Your task to perform on an android device: Open eBay Image 0: 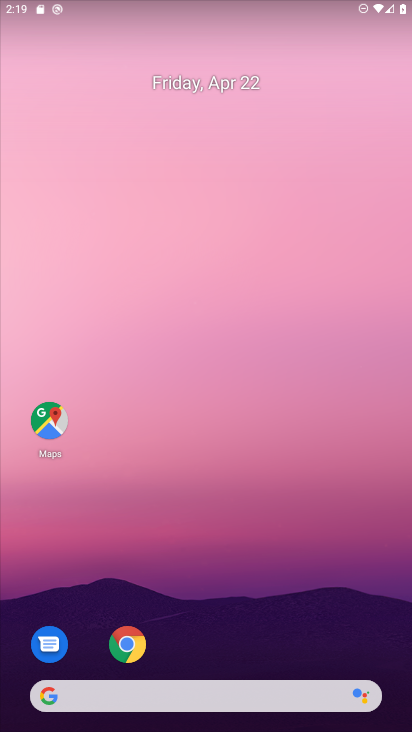
Step 0: drag from (181, 554) to (204, 67)
Your task to perform on an android device: Open eBay Image 1: 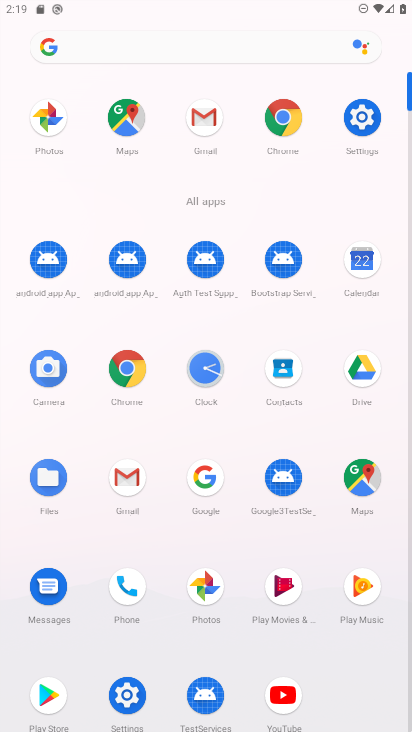
Step 1: click (281, 119)
Your task to perform on an android device: Open eBay Image 2: 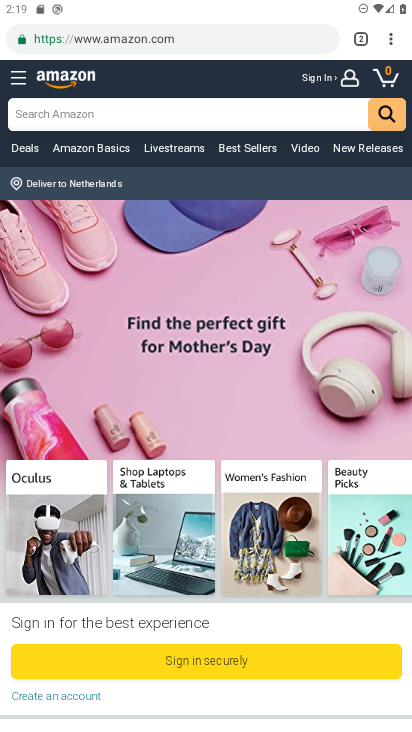
Step 2: click (147, 41)
Your task to perform on an android device: Open eBay Image 3: 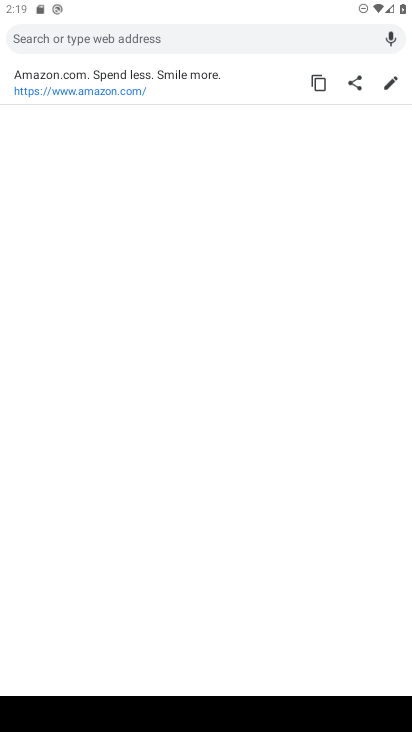
Step 3: type "ebay"
Your task to perform on an android device: Open eBay Image 4: 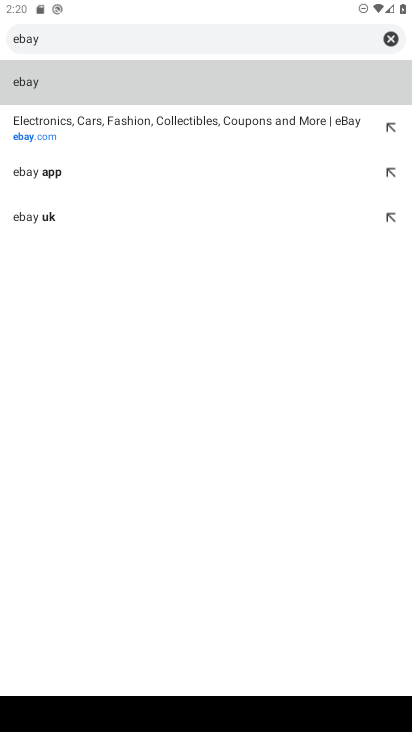
Step 4: click (30, 139)
Your task to perform on an android device: Open eBay Image 5: 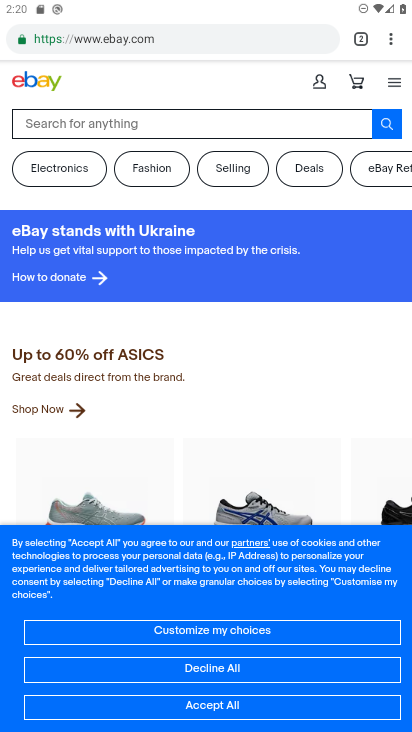
Step 5: task complete